Your task to perform on an android device: Go to battery settings Image 0: 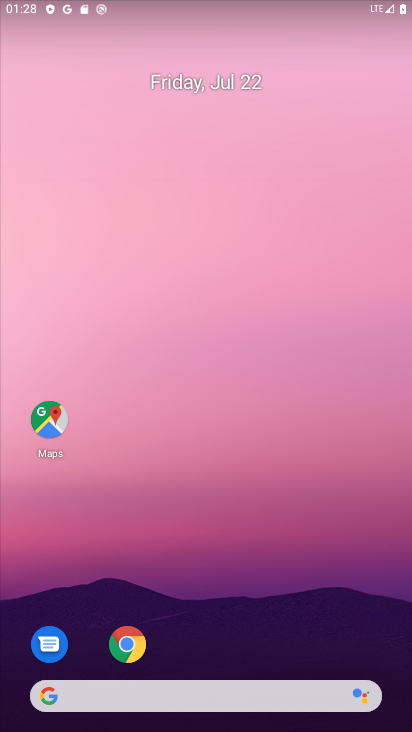
Step 0: drag from (177, 716) to (56, 9)
Your task to perform on an android device: Go to battery settings Image 1: 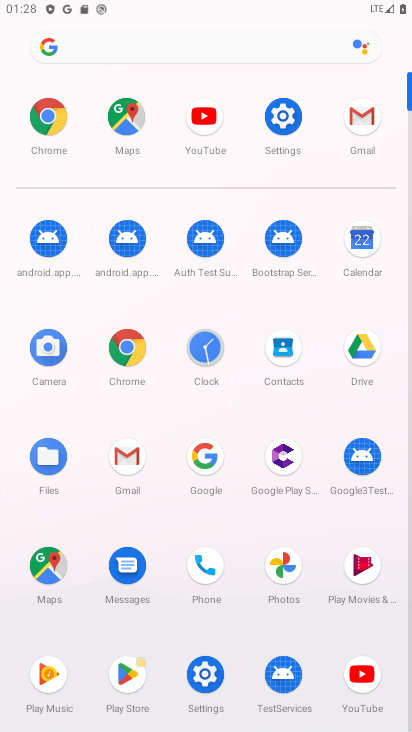
Step 1: click (293, 112)
Your task to perform on an android device: Go to battery settings Image 2: 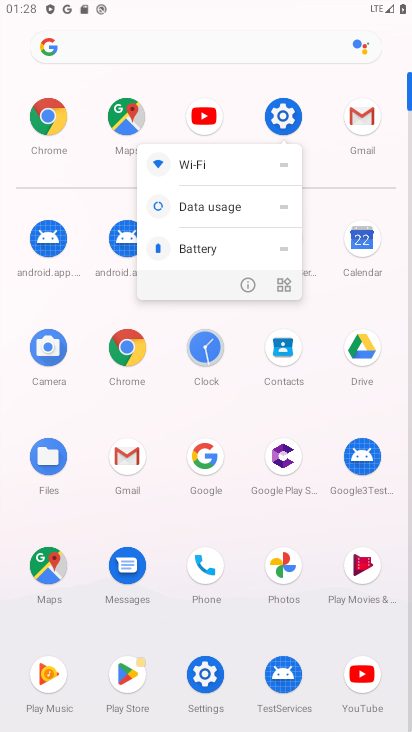
Step 2: click (295, 112)
Your task to perform on an android device: Go to battery settings Image 3: 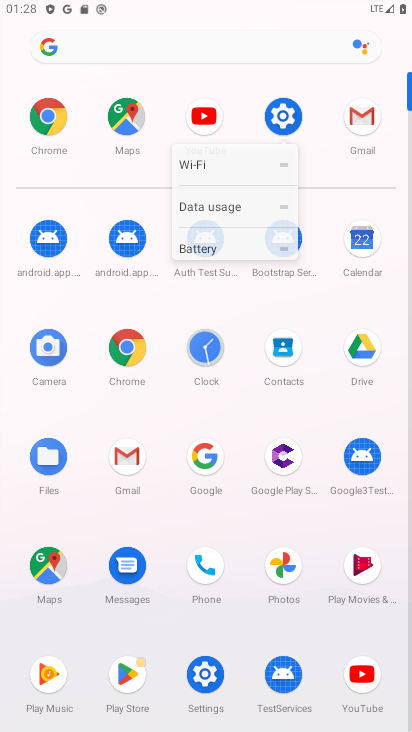
Step 3: click (295, 112)
Your task to perform on an android device: Go to battery settings Image 4: 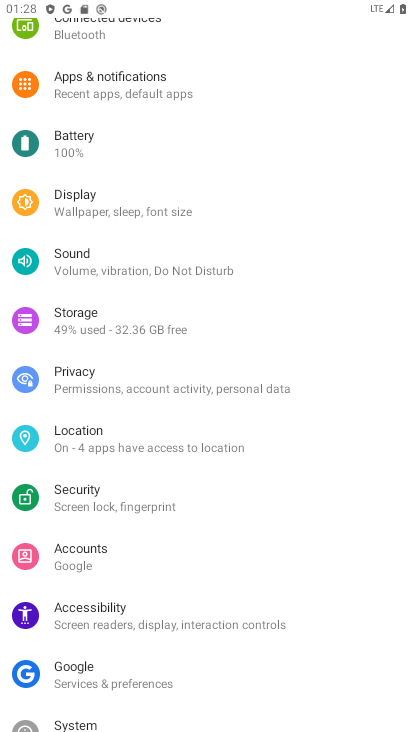
Step 4: click (127, 142)
Your task to perform on an android device: Go to battery settings Image 5: 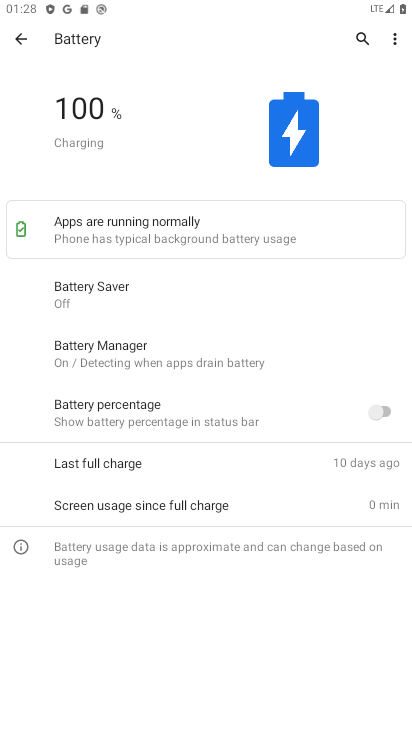
Step 5: task complete